Your task to perform on an android device: set default search engine in the chrome app Image 0: 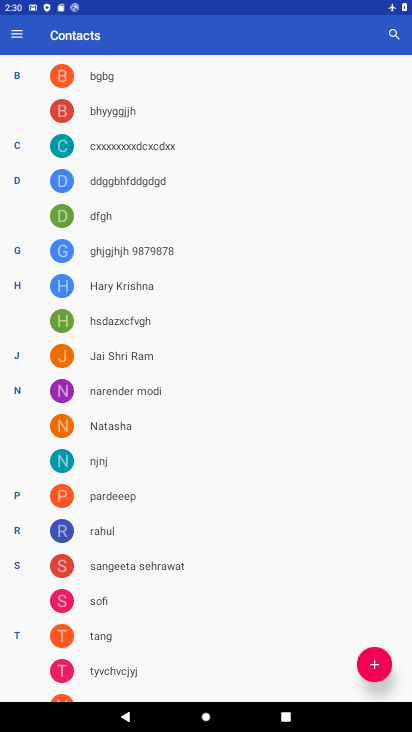
Step 0: press home button
Your task to perform on an android device: set default search engine in the chrome app Image 1: 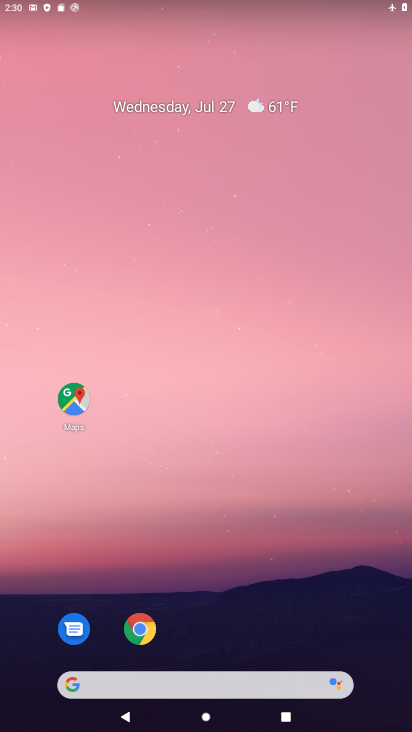
Step 1: drag from (281, 633) to (296, 99)
Your task to perform on an android device: set default search engine in the chrome app Image 2: 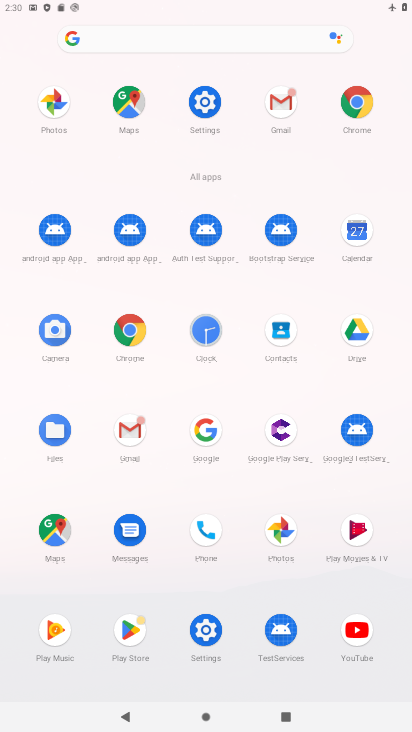
Step 2: click (122, 333)
Your task to perform on an android device: set default search engine in the chrome app Image 3: 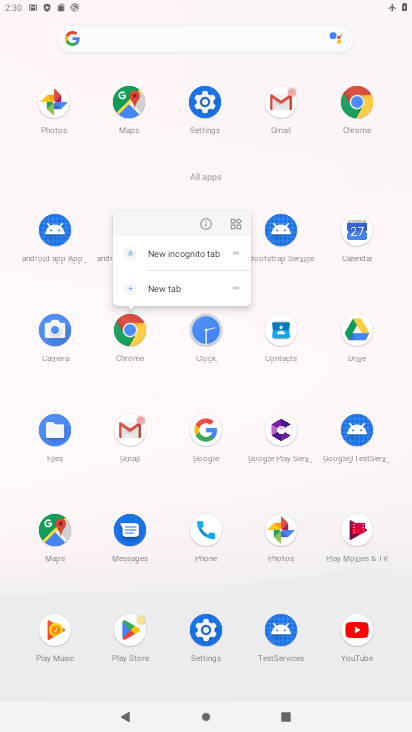
Step 3: click (135, 328)
Your task to perform on an android device: set default search engine in the chrome app Image 4: 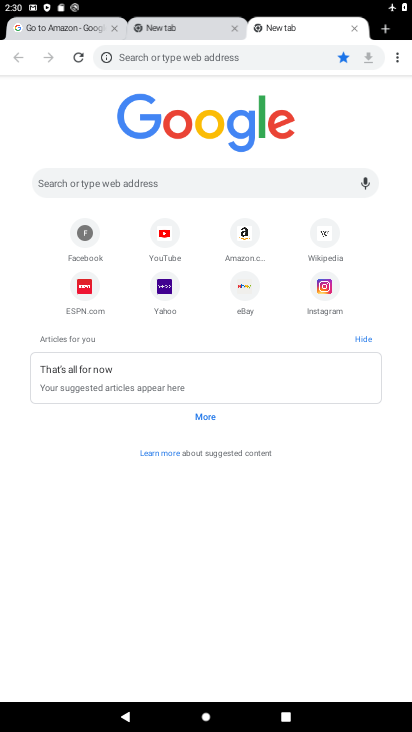
Step 4: drag from (395, 54) to (281, 261)
Your task to perform on an android device: set default search engine in the chrome app Image 5: 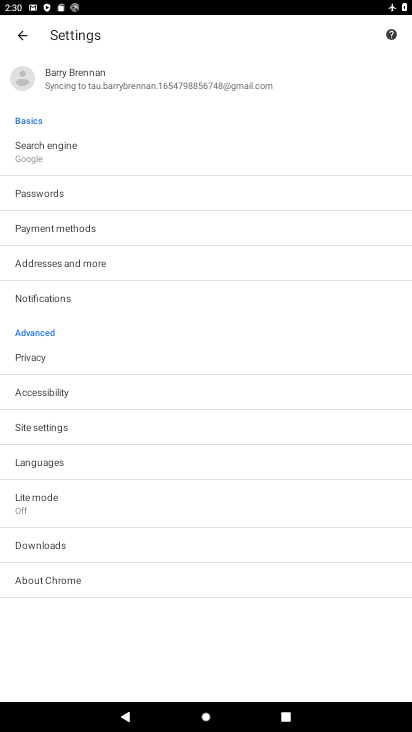
Step 5: click (50, 75)
Your task to perform on an android device: set default search engine in the chrome app Image 6: 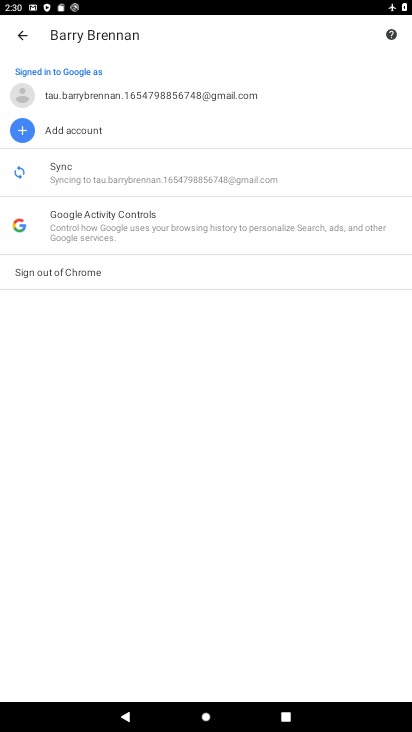
Step 6: click (19, 46)
Your task to perform on an android device: set default search engine in the chrome app Image 7: 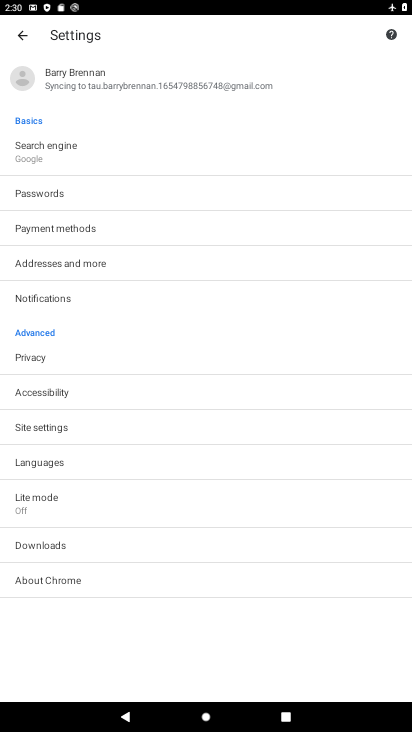
Step 7: click (33, 148)
Your task to perform on an android device: set default search engine in the chrome app Image 8: 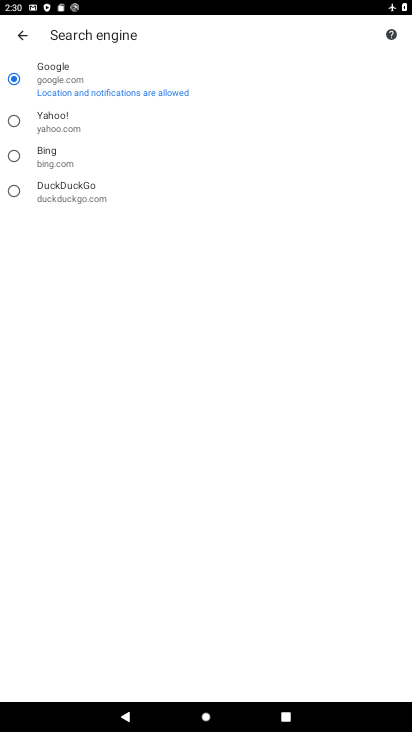
Step 8: task complete